Your task to perform on an android device: turn smart compose on in the gmail app Image 0: 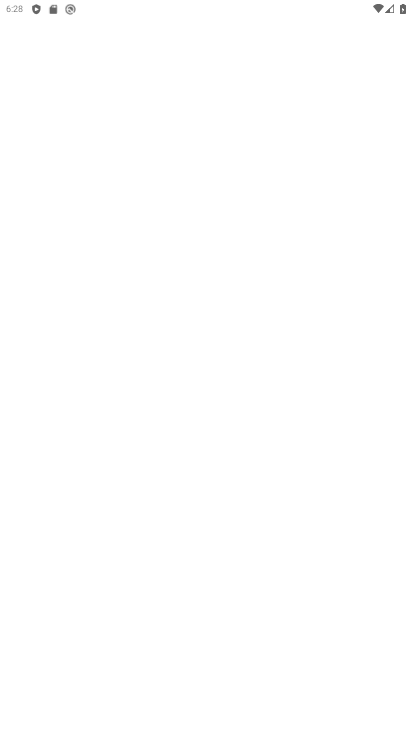
Step 0: press back button
Your task to perform on an android device: turn smart compose on in the gmail app Image 1: 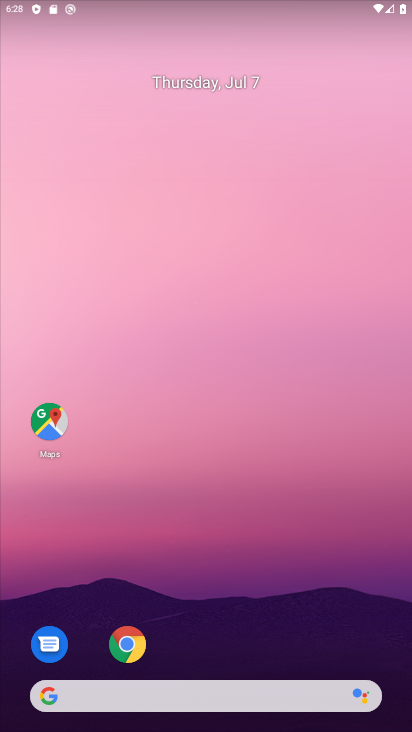
Step 1: drag from (181, 122) to (205, 52)
Your task to perform on an android device: turn smart compose on in the gmail app Image 2: 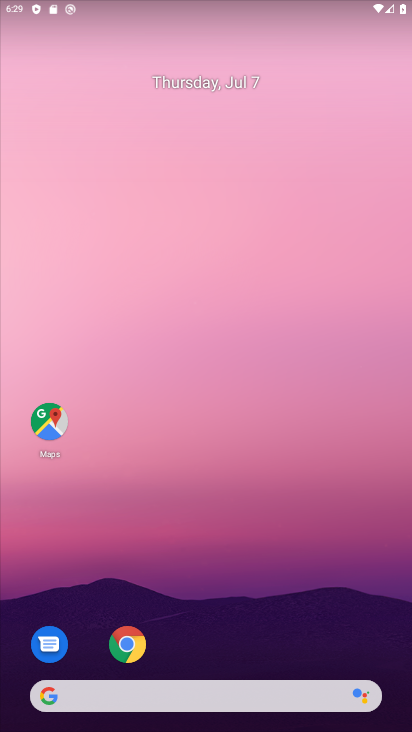
Step 2: drag from (213, 416) to (214, 21)
Your task to perform on an android device: turn smart compose on in the gmail app Image 3: 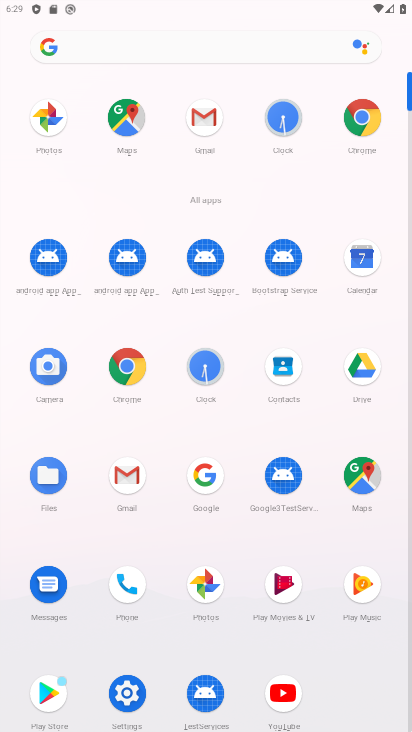
Step 3: click (193, 124)
Your task to perform on an android device: turn smart compose on in the gmail app Image 4: 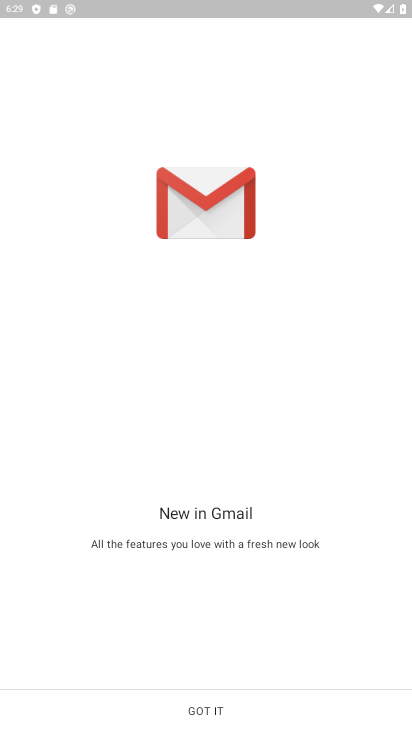
Step 4: click (201, 716)
Your task to perform on an android device: turn smart compose on in the gmail app Image 5: 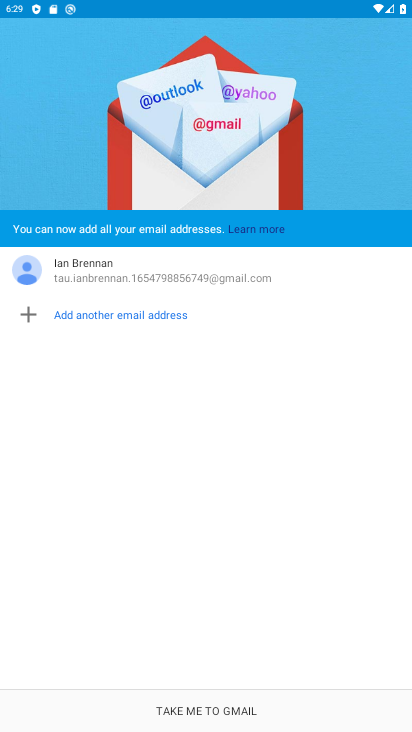
Step 5: click (221, 725)
Your task to perform on an android device: turn smart compose on in the gmail app Image 6: 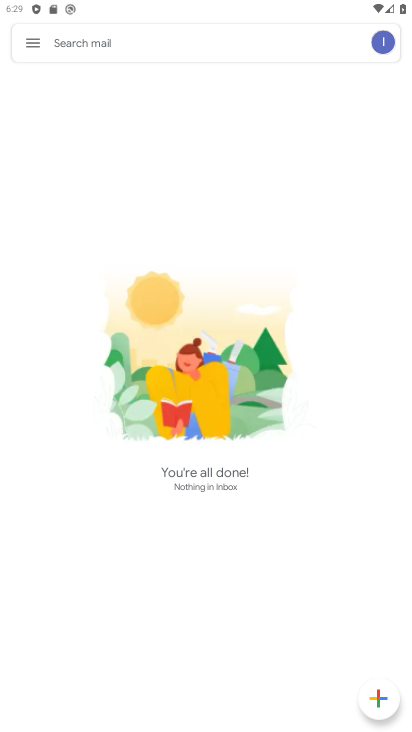
Step 6: click (35, 44)
Your task to perform on an android device: turn smart compose on in the gmail app Image 7: 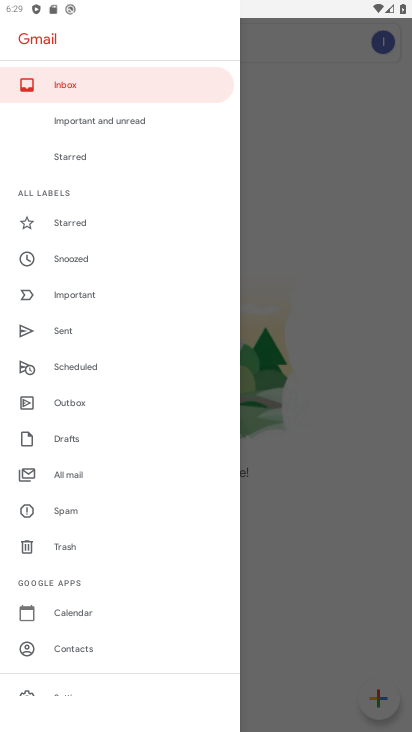
Step 7: drag from (54, 596) to (91, 296)
Your task to perform on an android device: turn smart compose on in the gmail app Image 8: 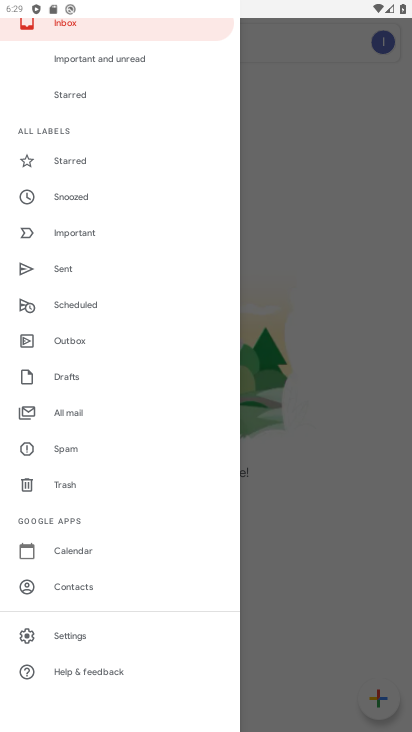
Step 8: click (73, 641)
Your task to perform on an android device: turn smart compose on in the gmail app Image 9: 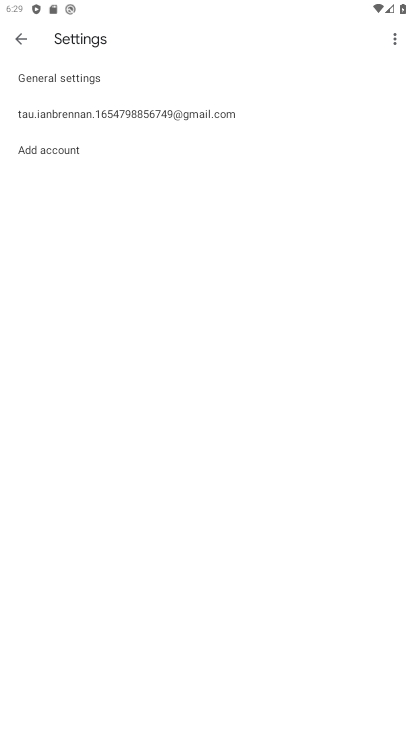
Step 9: click (190, 113)
Your task to perform on an android device: turn smart compose on in the gmail app Image 10: 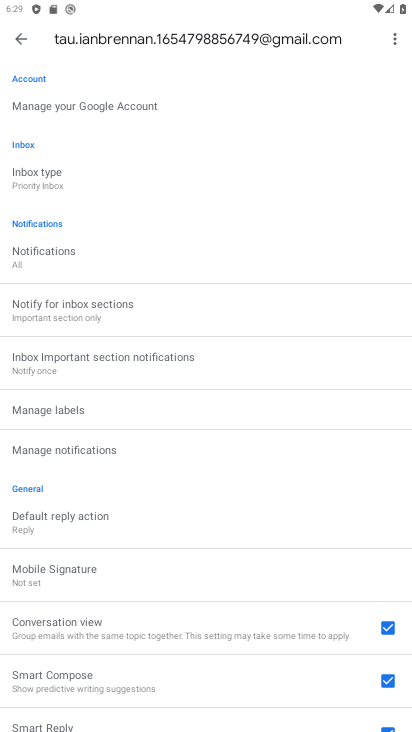
Step 10: task complete